Your task to perform on an android device: Turn off the flashlight Image 0: 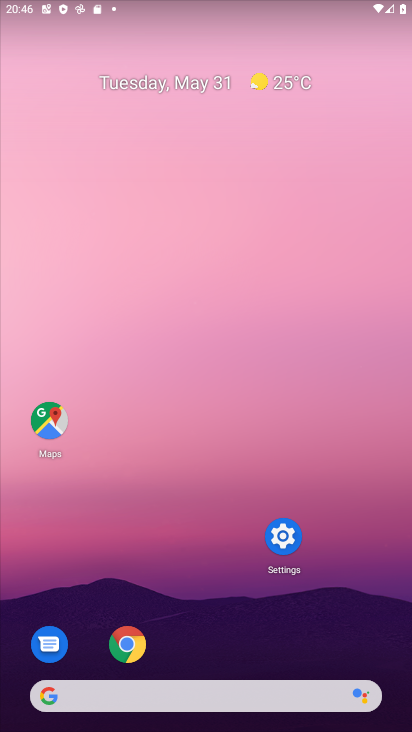
Step 0: drag from (244, 717) to (258, 201)
Your task to perform on an android device: Turn off the flashlight Image 1: 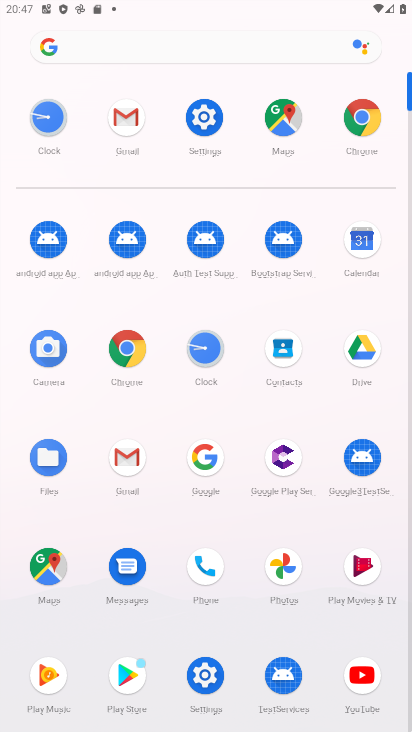
Step 1: click (215, 115)
Your task to perform on an android device: Turn off the flashlight Image 2: 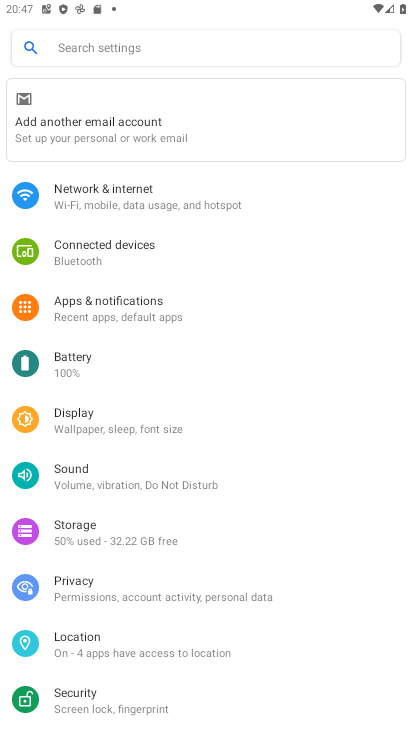
Step 2: click (110, 45)
Your task to perform on an android device: Turn off the flashlight Image 3: 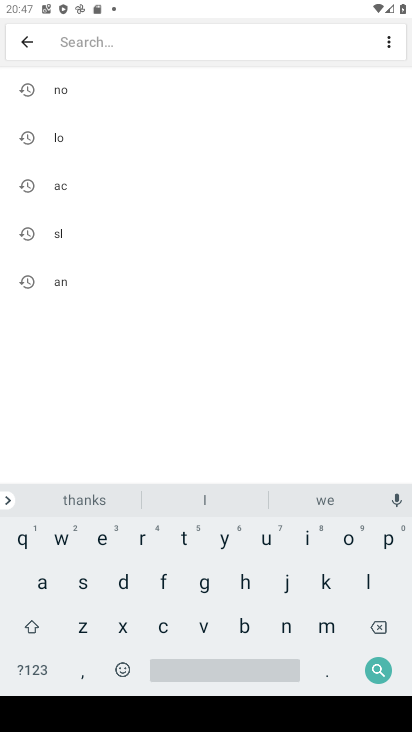
Step 3: click (163, 581)
Your task to perform on an android device: Turn off the flashlight Image 4: 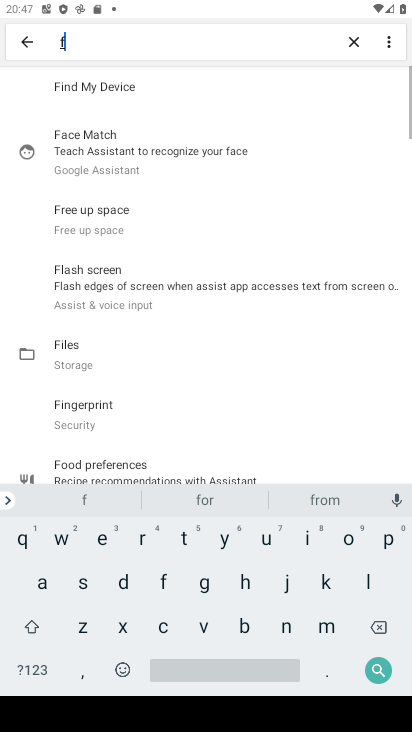
Step 4: click (370, 579)
Your task to perform on an android device: Turn off the flashlight Image 5: 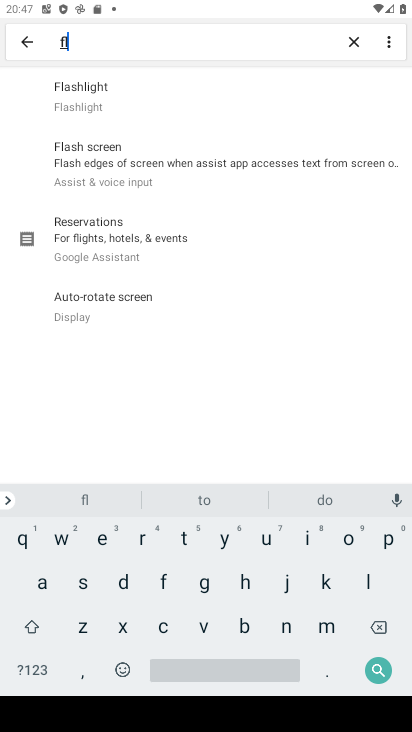
Step 5: click (127, 97)
Your task to perform on an android device: Turn off the flashlight Image 6: 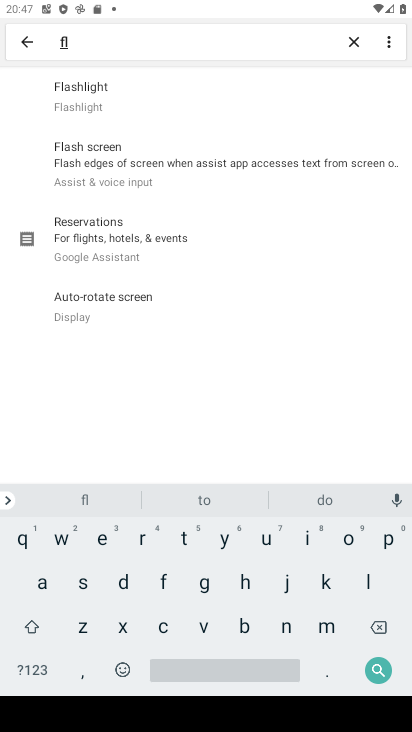
Step 6: task complete